Your task to perform on an android device: Show me recent news Image 0: 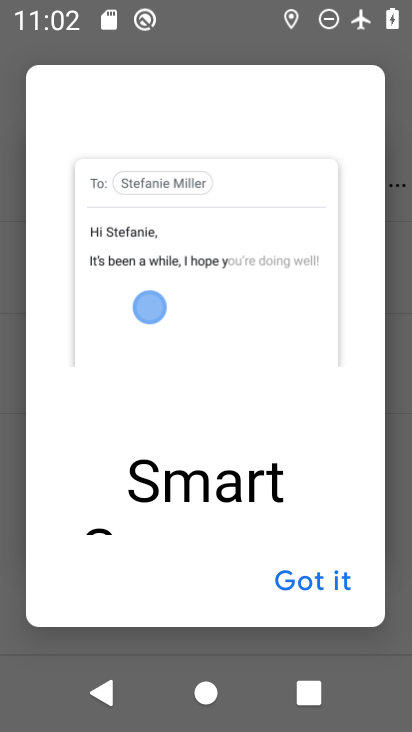
Step 0: press home button
Your task to perform on an android device: Show me recent news Image 1: 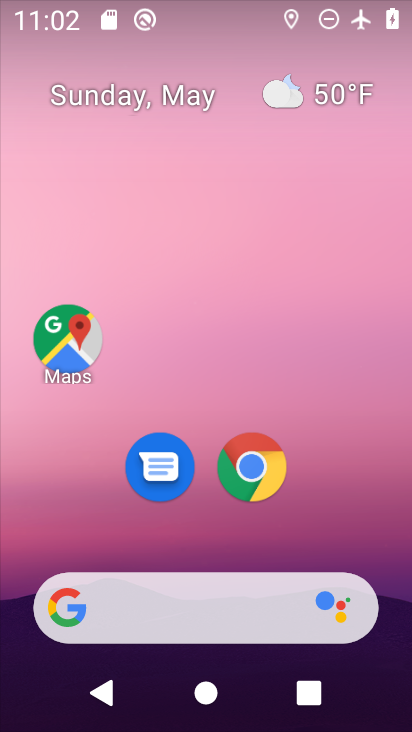
Step 1: drag from (211, 534) to (211, 198)
Your task to perform on an android device: Show me recent news Image 2: 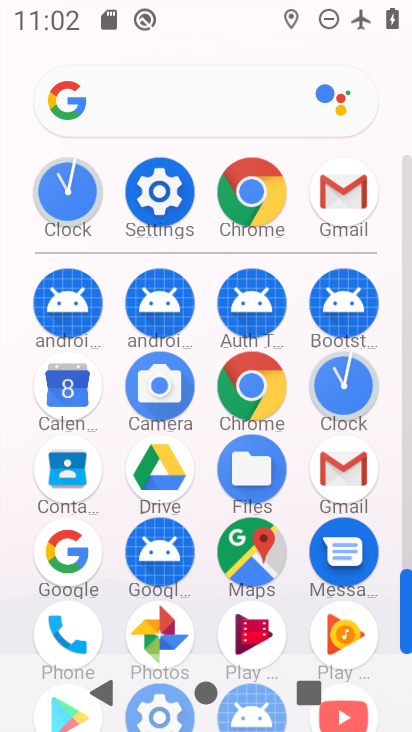
Step 2: click (89, 552)
Your task to perform on an android device: Show me recent news Image 3: 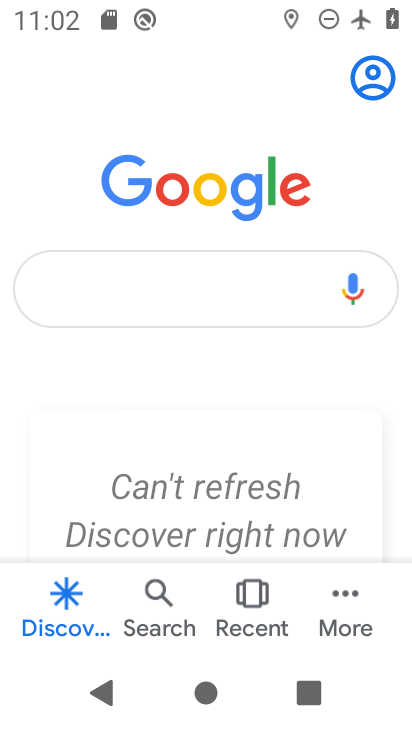
Step 3: click (171, 304)
Your task to perform on an android device: Show me recent news Image 4: 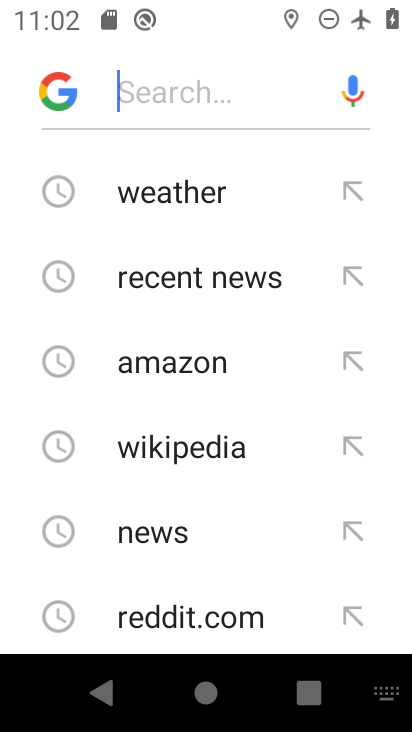
Step 4: click (177, 282)
Your task to perform on an android device: Show me recent news Image 5: 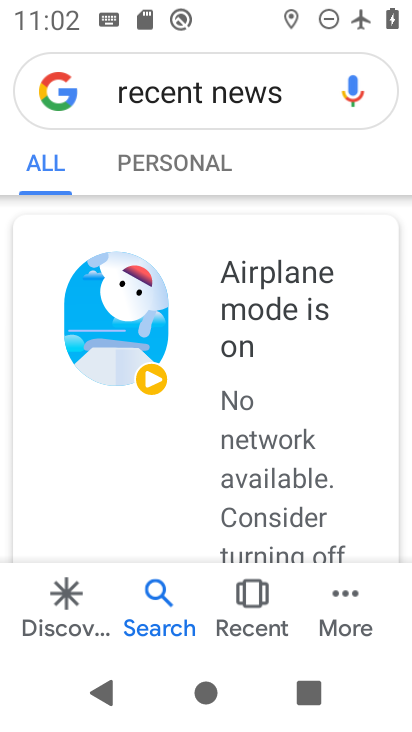
Step 5: task complete